Your task to perform on an android device: Open maps Image 0: 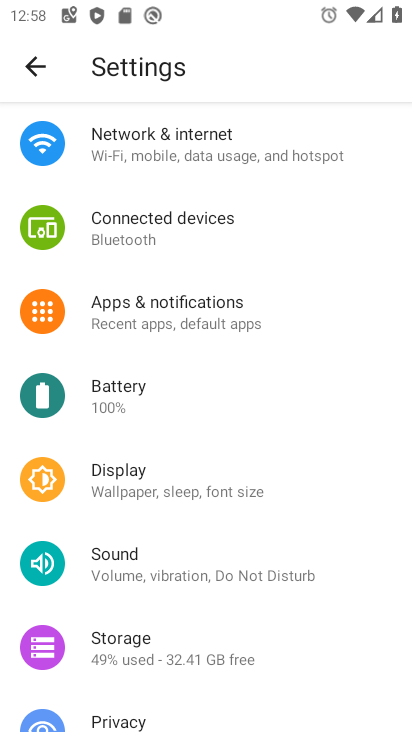
Step 0: press home button
Your task to perform on an android device: Open maps Image 1: 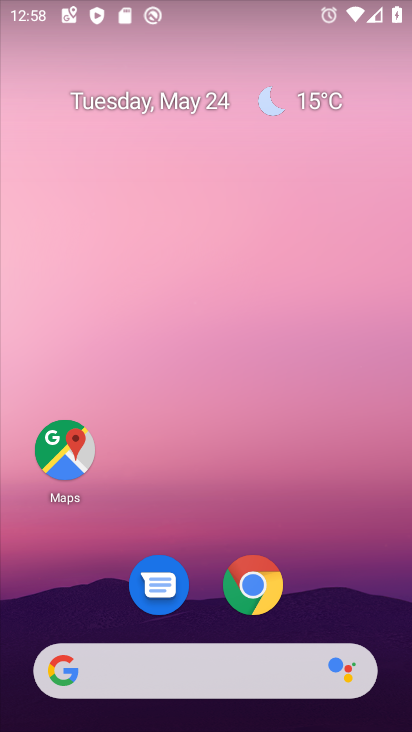
Step 1: click (63, 460)
Your task to perform on an android device: Open maps Image 2: 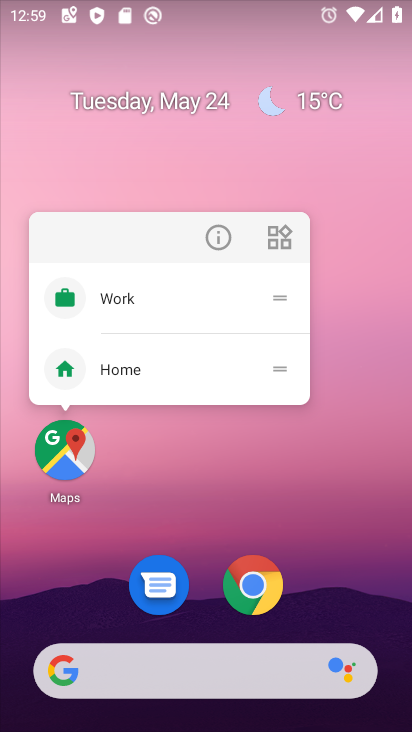
Step 2: click (74, 445)
Your task to perform on an android device: Open maps Image 3: 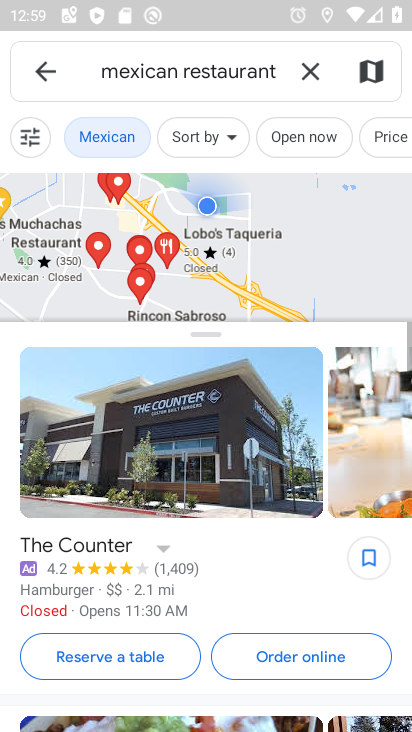
Step 3: click (306, 66)
Your task to perform on an android device: Open maps Image 4: 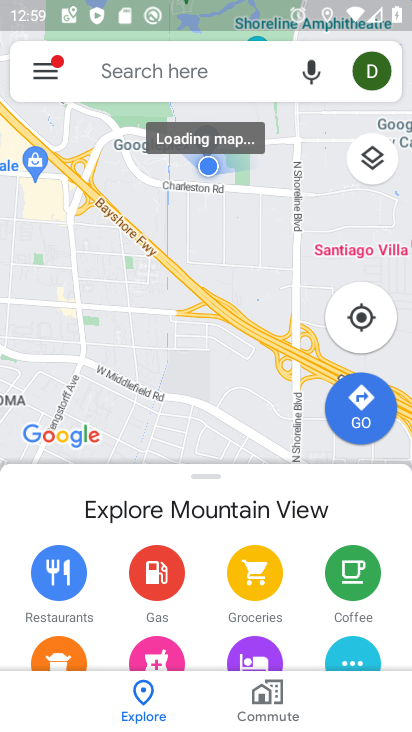
Step 4: task complete